Your task to perform on an android device: turn off location history Image 0: 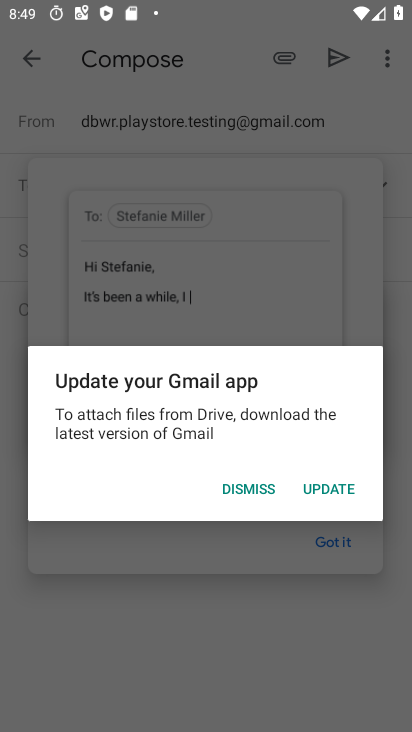
Step 0: press back button
Your task to perform on an android device: turn off location history Image 1: 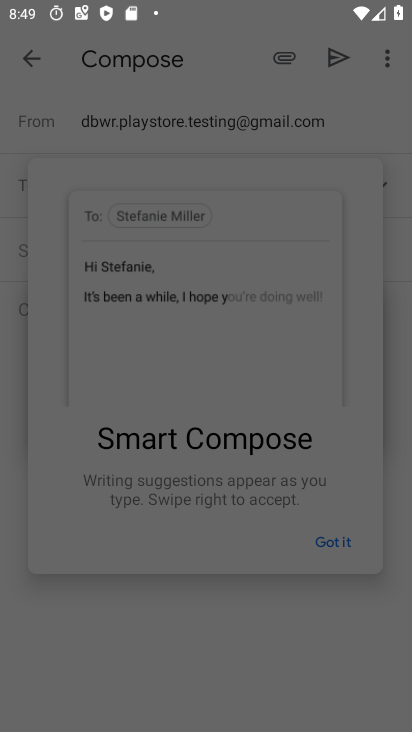
Step 1: press home button
Your task to perform on an android device: turn off location history Image 2: 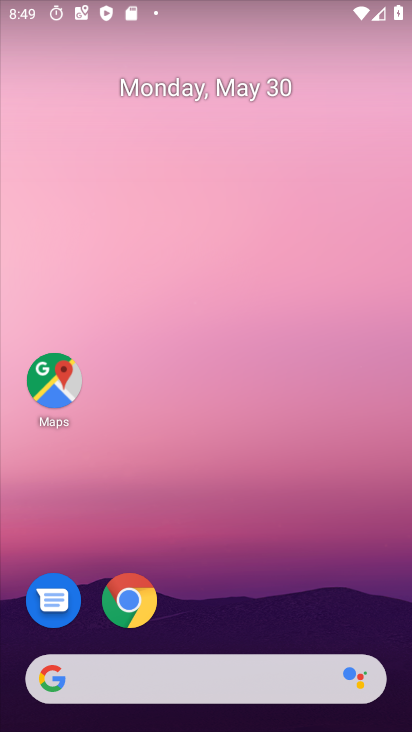
Step 2: drag from (251, 461) to (208, 3)
Your task to perform on an android device: turn off location history Image 3: 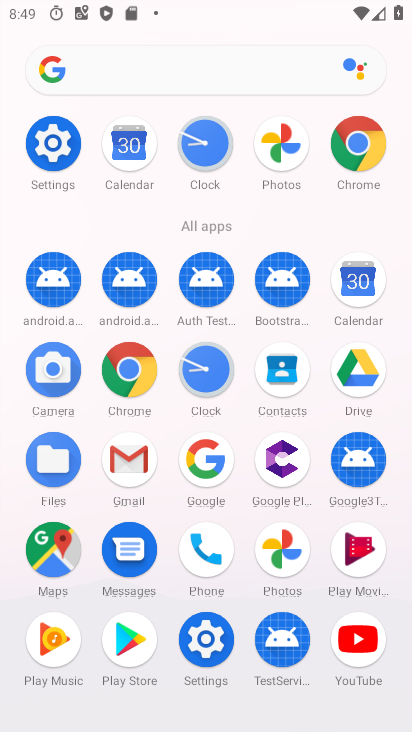
Step 3: drag from (0, 546) to (5, 262)
Your task to perform on an android device: turn off location history Image 4: 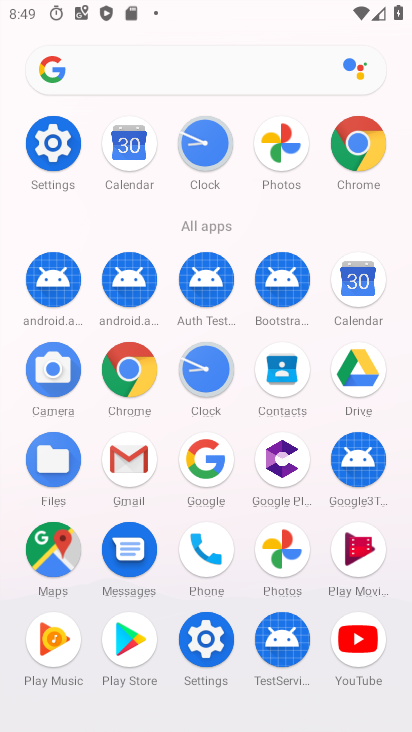
Step 4: click (202, 637)
Your task to perform on an android device: turn off location history Image 5: 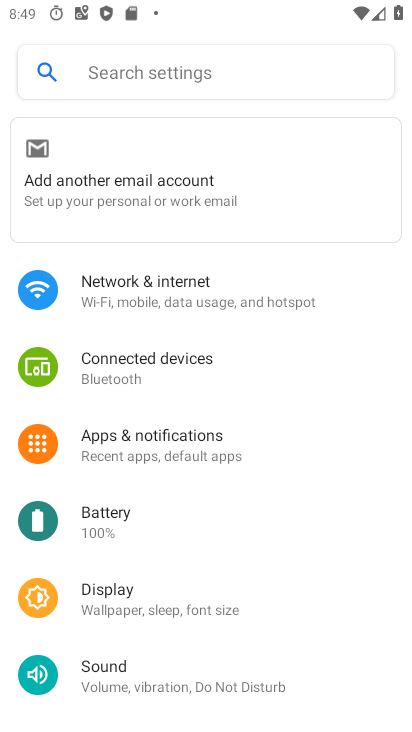
Step 5: drag from (317, 682) to (329, 268)
Your task to perform on an android device: turn off location history Image 6: 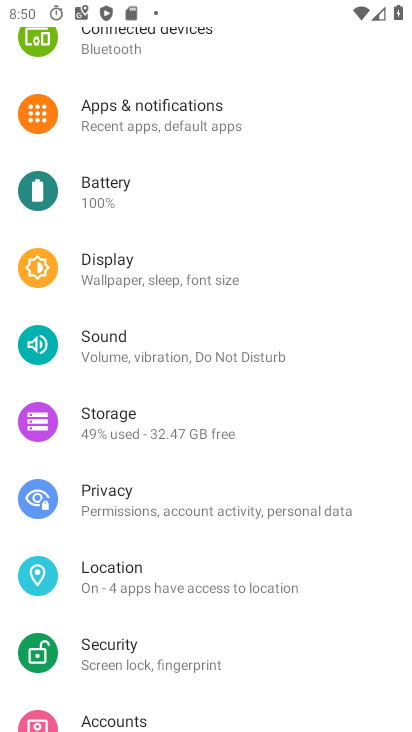
Step 6: click (179, 576)
Your task to perform on an android device: turn off location history Image 7: 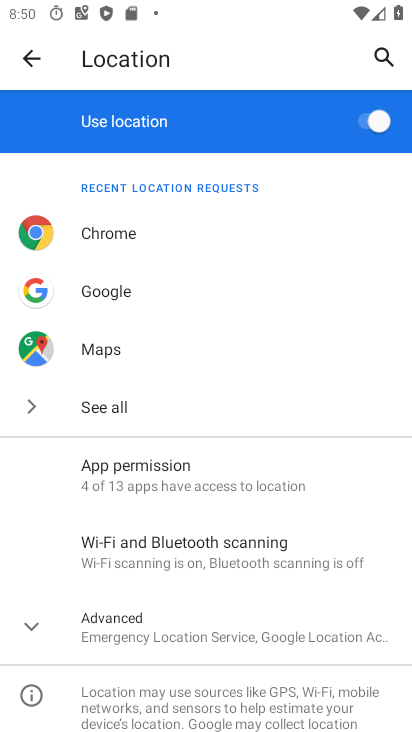
Step 7: click (63, 628)
Your task to perform on an android device: turn off location history Image 8: 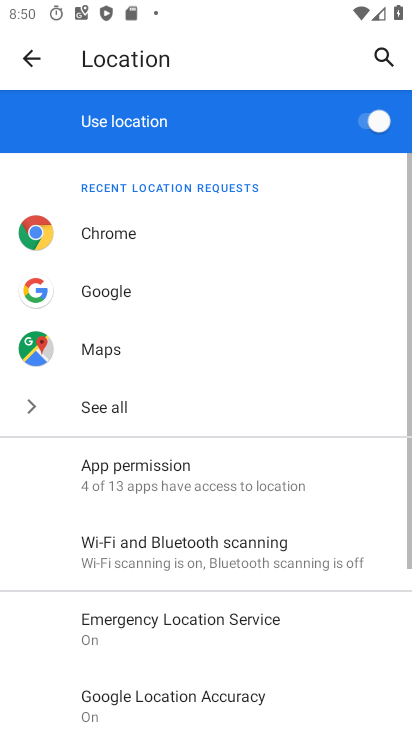
Step 8: drag from (345, 543) to (342, 147)
Your task to perform on an android device: turn off location history Image 9: 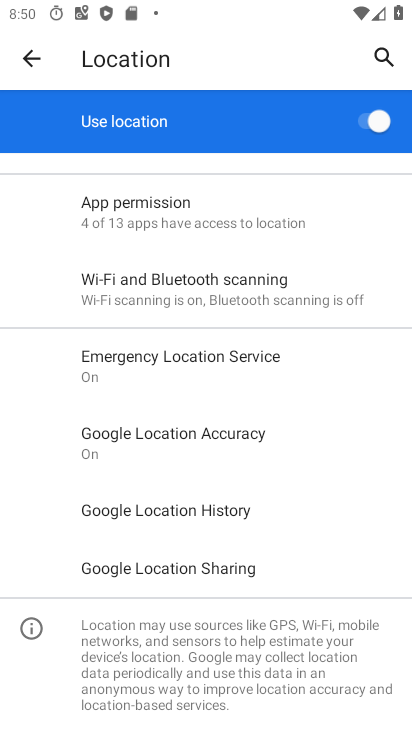
Step 9: click (198, 508)
Your task to perform on an android device: turn off location history Image 10: 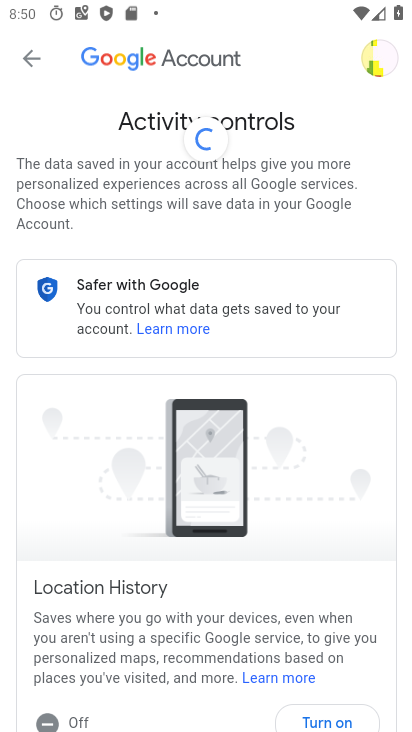
Step 10: task complete